Your task to perform on an android device: Open the calendar app, open the side menu, and click the "Day" option Image 0: 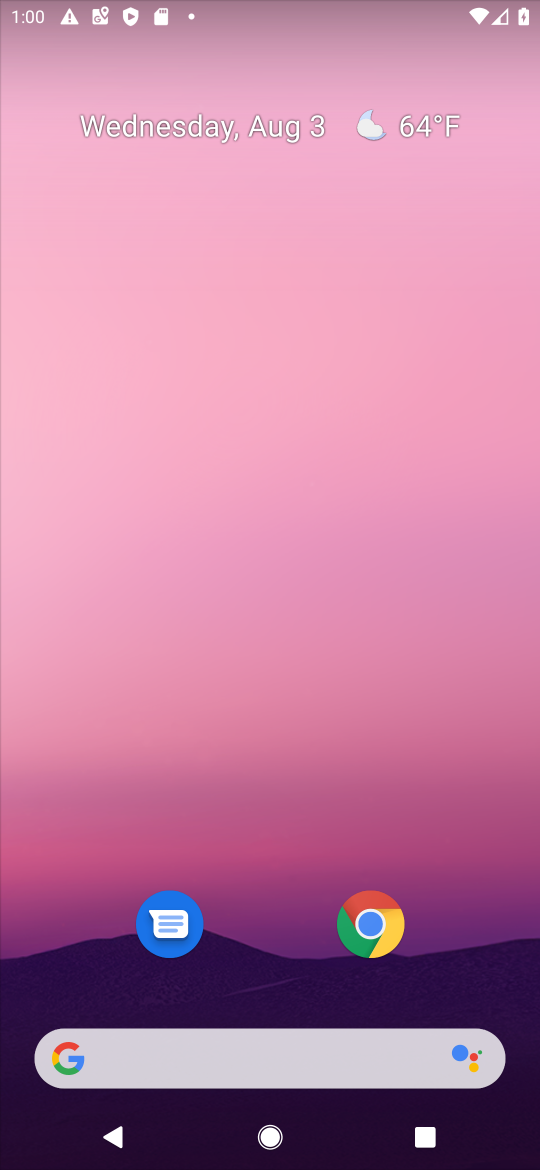
Step 0: drag from (72, 958) to (316, 36)
Your task to perform on an android device: Open the calendar app, open the side menu, and click the "Day" option Image 1: 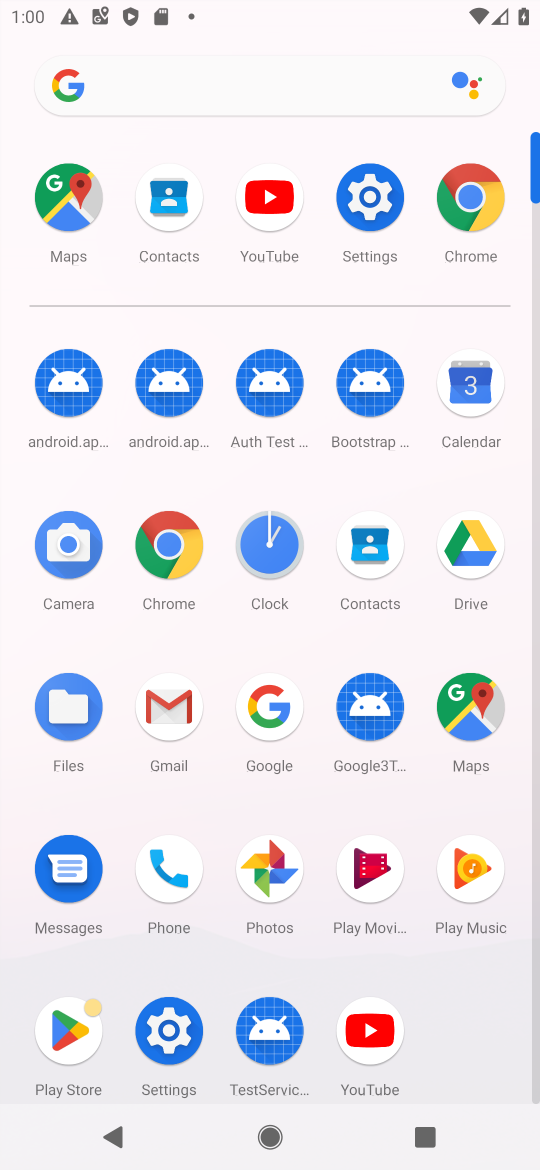
Step 1: click (463, 399)
Your task to perform on an android device: Open the calendar app, open the side menu, and click the "Day" option Image 2: 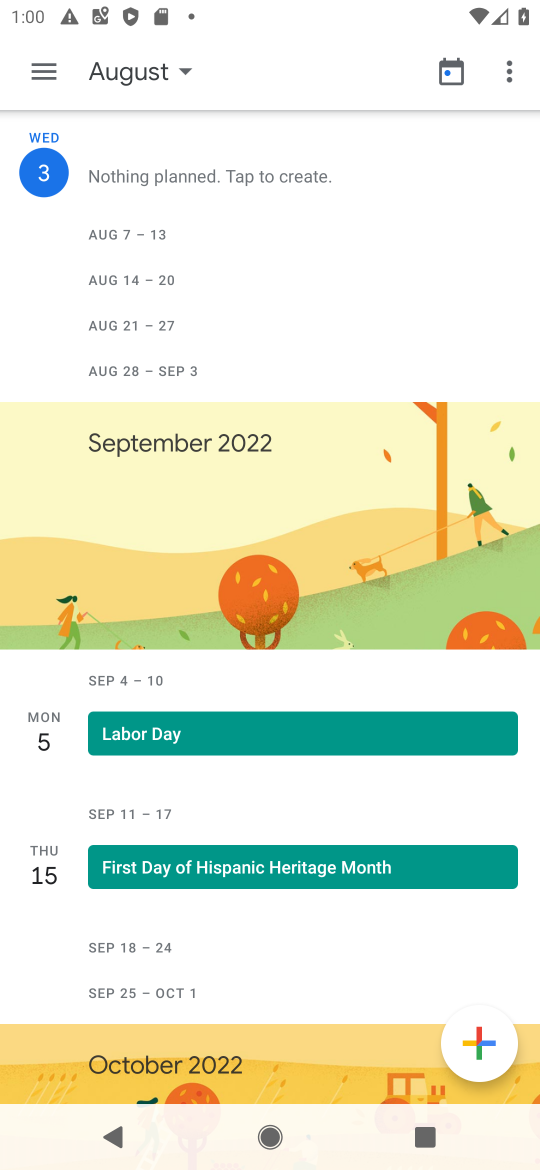
Step 2: click (54, 88)
Your task to perform on an android device: Open the calendar app, open the side menu, and click the "Day" option Image 3: 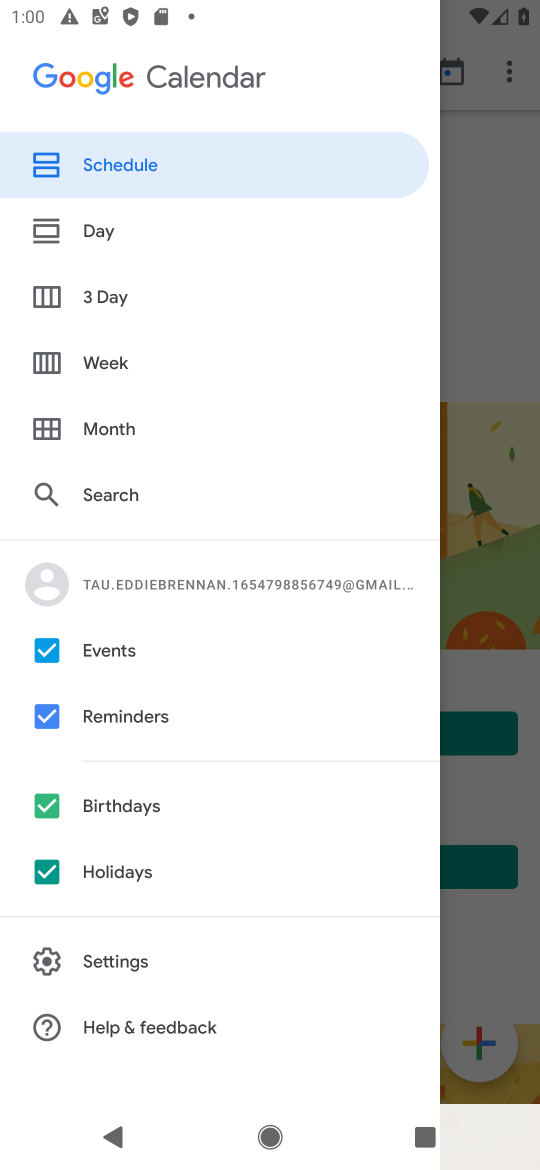
Step 3: click (113, 242)
Your task to perform on an android device: Open the calendar app, open the side menu, and click the "Day" option Image 4: 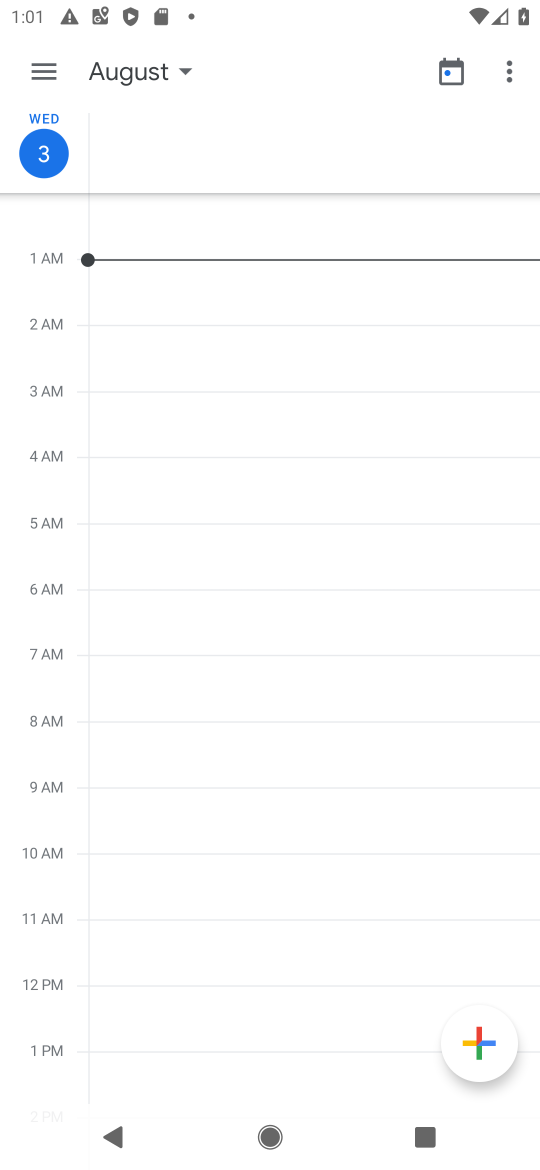
Step 4: click (51, 74)
Your task to perform on an android device: Open the calendar app, open the side menu, and click the "Day" option Image 5: 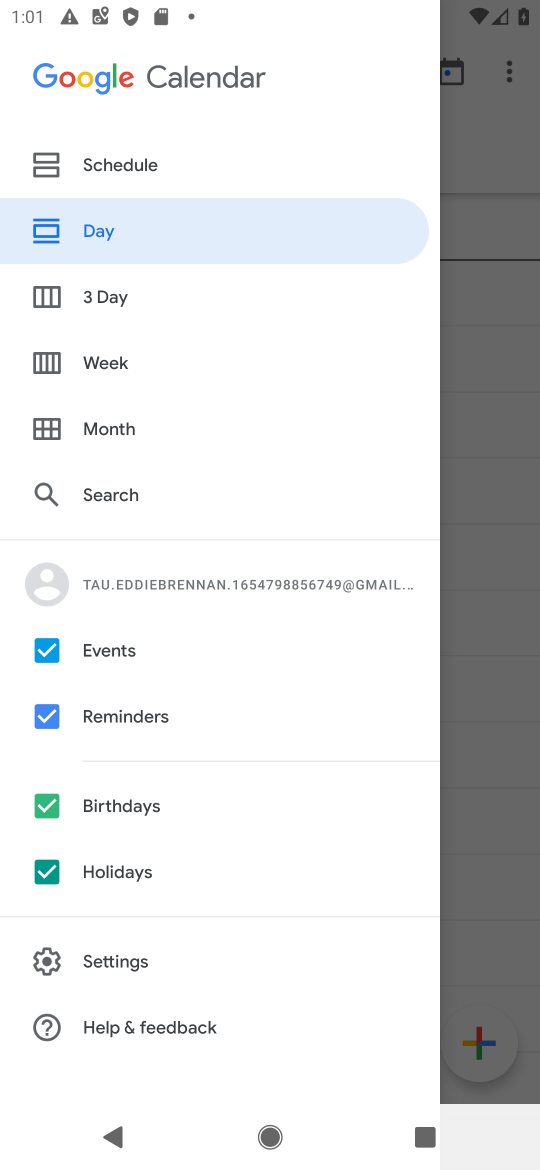
Step 5: task complete